Your task to perform on an android device: Go to settings Image 0: 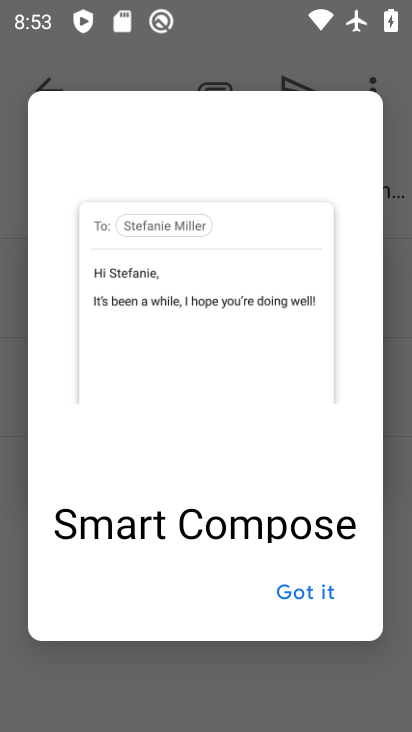
Step 0: press home button
Your task to perform on an android device: Go to settings Image 1: 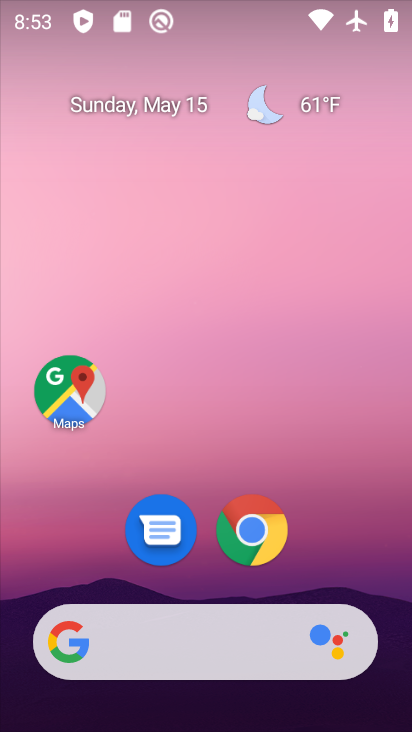
Step 1: drag from (192, 725) to (144, 170)
Your task to perform on an android device: Go to settings Image 2: 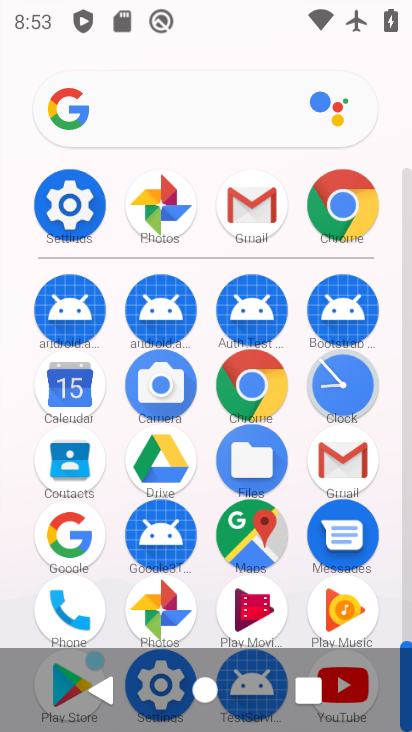
Step 2: click (69, 212)
Your task to perform on an android device: Go to settings Image 3: 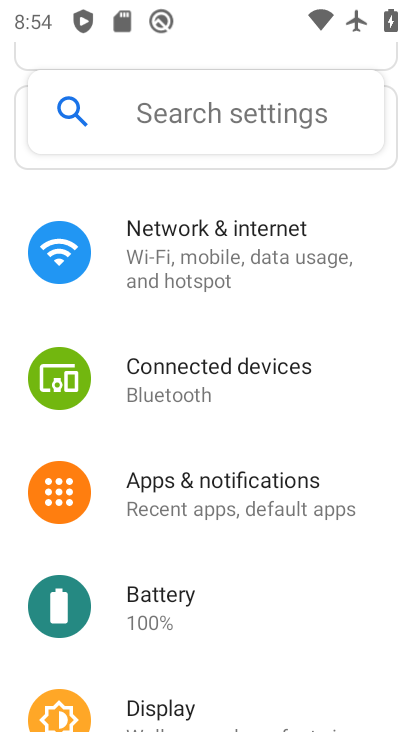
Step 3: task complete